Your task to perform on an android device: Check the weather Image 0: 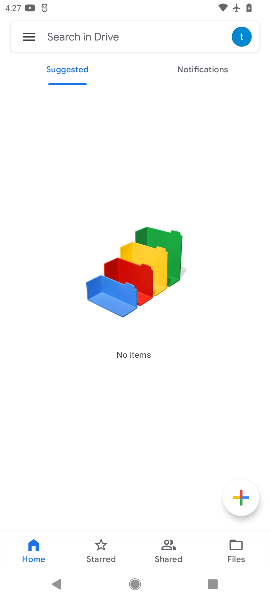
Step 0: press home button
Your task to perform on an android device: Check the weather Image 1: 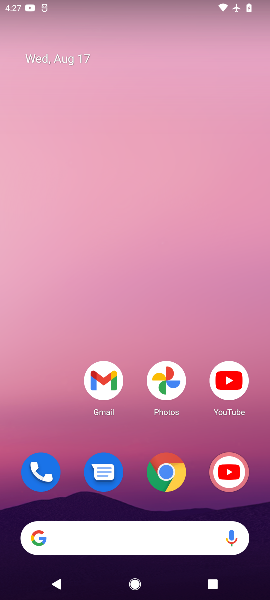
Step 1: click (155, 540)
Your task to perform on an android device: Check the weather Image 2: 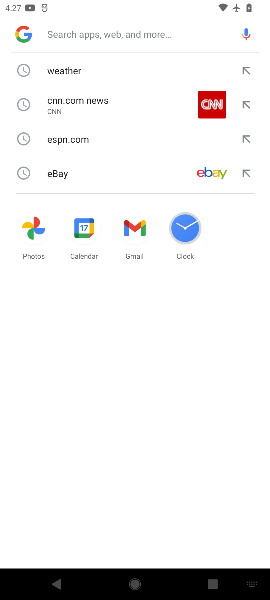
Step 2: click (78, 74)
Your task to perform on an android device: Check the weather Image 3: 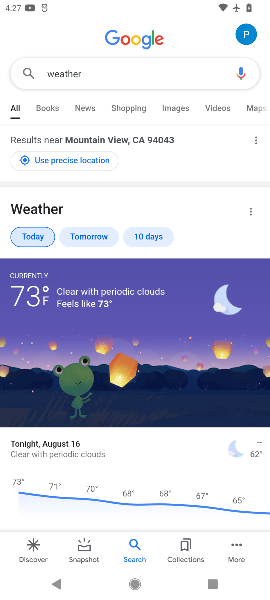
Step 3: task complete